Your task to perform on an android device: Go to Reddit.com Image 0: 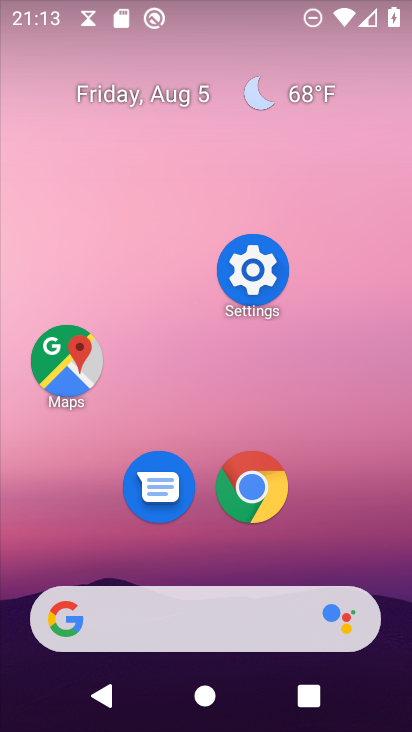
Step 0: press home button
Your task to perform on an android device: Go to Reddit.com Image 1: 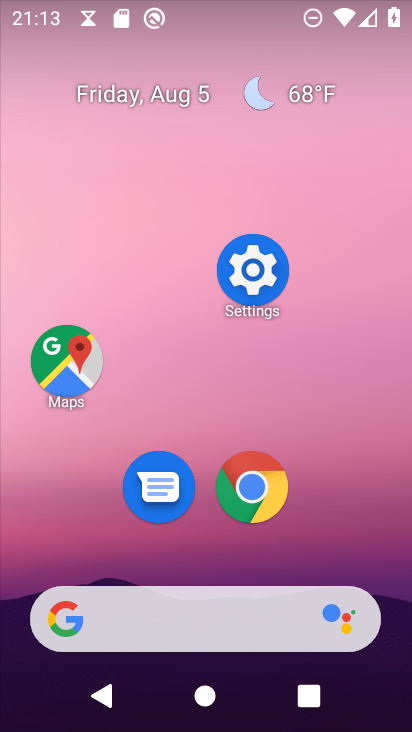
Step 1: click (259, 488)
Your task to perform on an android device: Go to Reddit.com Image 2: 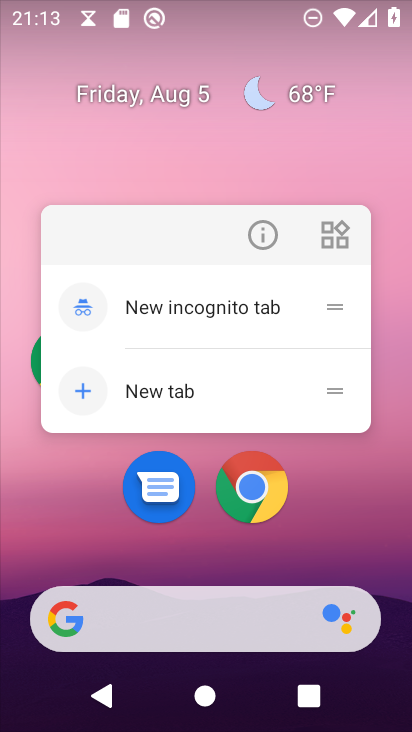
Step 2: click (259, 490)
Your task to perform on an android device: Go to Reddit.com Image 3: 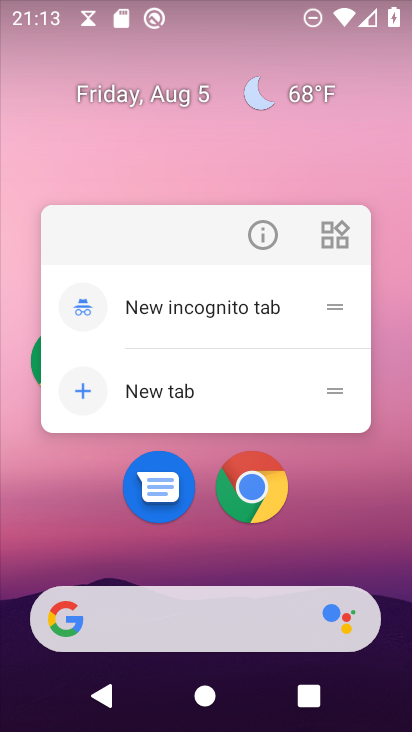
Step 3: click (259, 488)
Your task to perform on an android device: Go to Reddit.com Image 4: 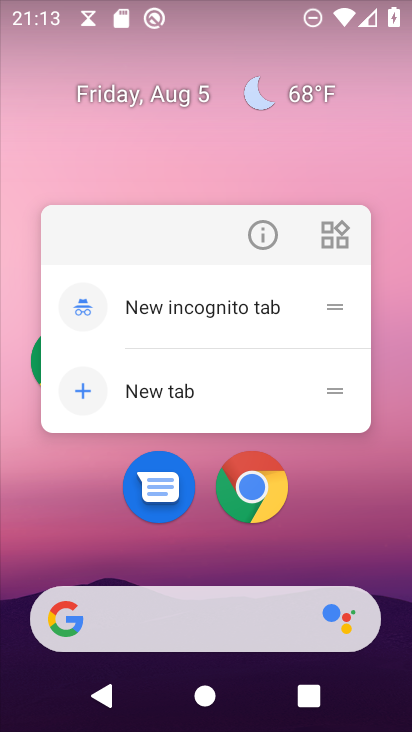
Step 4: click (252, 489)
Your task to perform on an android device: Go to Reddit.com Image 5: 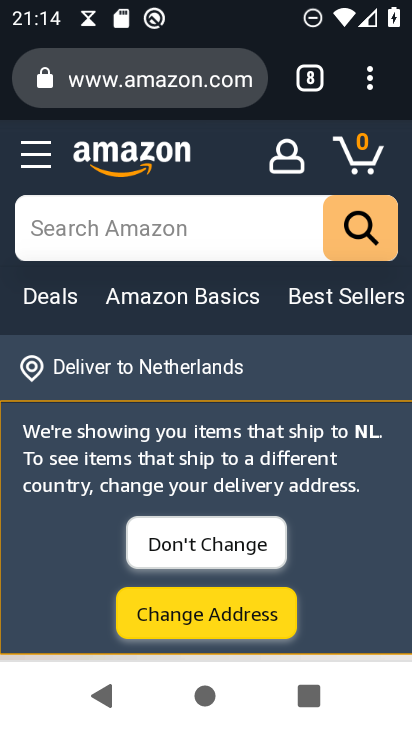
Step 5: drag from (373, 82) to (239, 170)
Your task to perform on an android device: Go to Reddit.com Image 6: 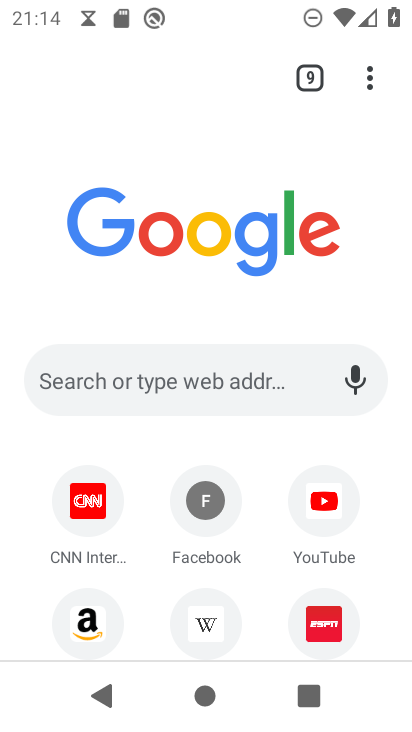
Step 6: drag from (235, 582) to (256, 539)
Your task to perform on an android device: Go to Reddit.com Image 7: 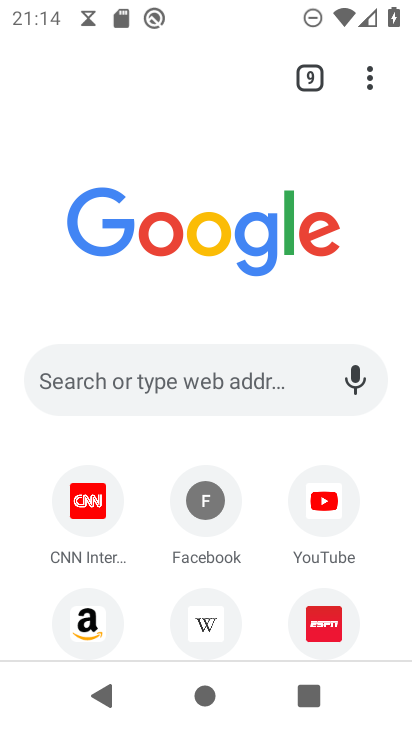
Step 7: click (143, 361)
Your task to perform on an android device: Go to Reddit.com Image 8: 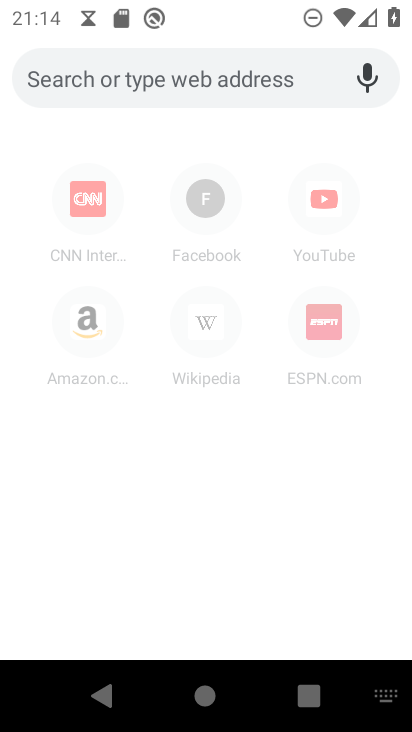
Step 8: type "Reddit.com"
Your task to perform on an android device: Go to Reddit.com Image 9: 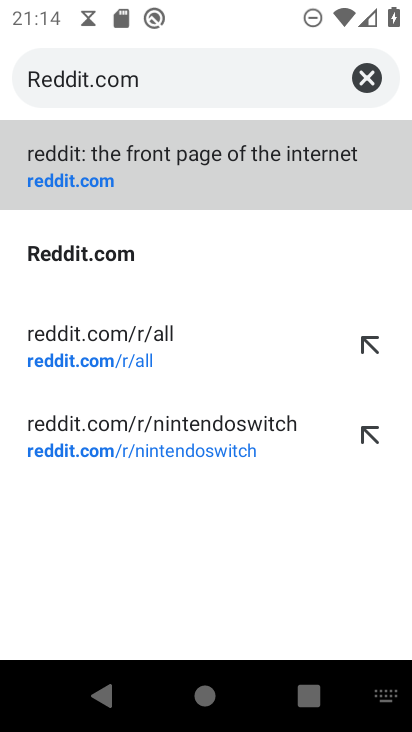
Step 9: click (182, 176)
Your task to perform on an android device: Go to Reddit.com Image 10: 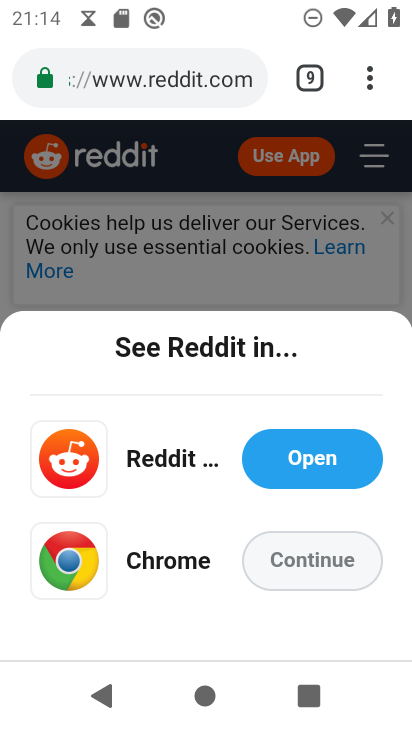
Step 10: task complete